Your task to perform on an android device: change the clock display to show seconds Image 0: 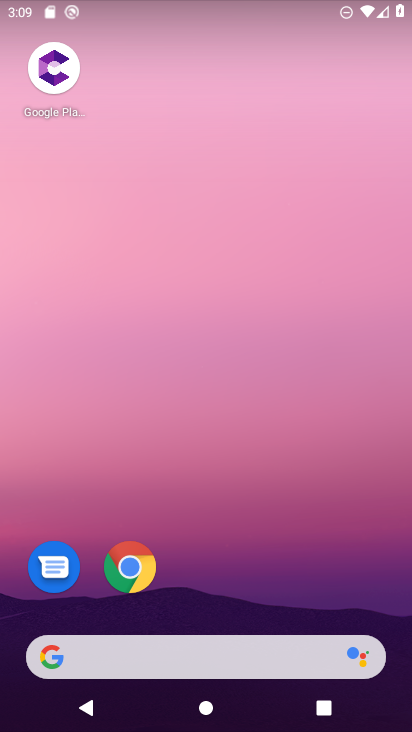
Step 0: drag from (232, 645) to (210, 165)
Your task to perform on an android device: change the clock display to show seconds Image 1: 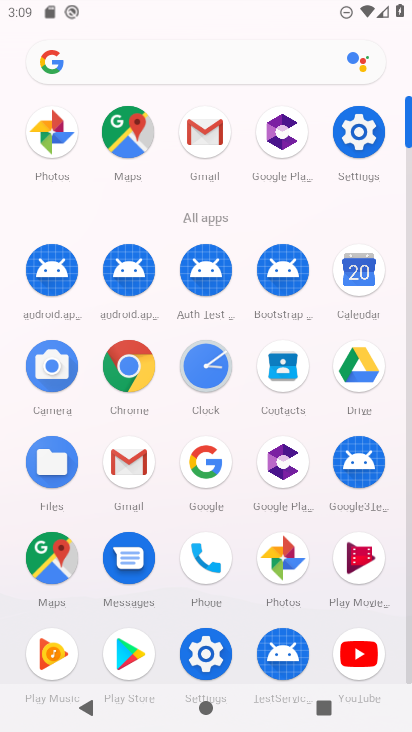
Step 1: click (202, 367)
Your task to perform on an android device: change the clock display to show seconds Image 2: 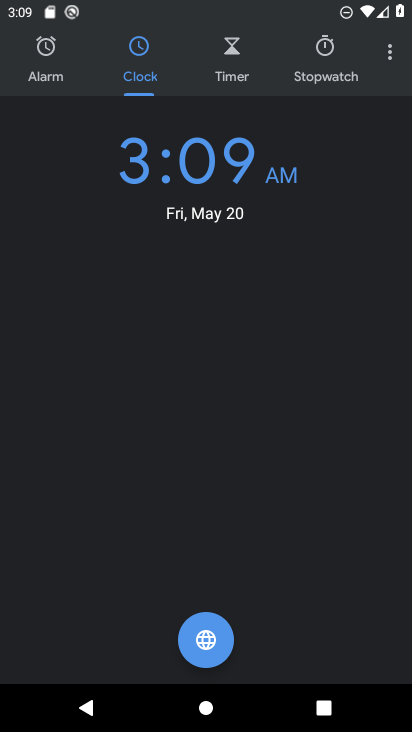
Step 2: click (390, 57)
Your task to perform on an android device: change the clock display to show seconds Image 3: 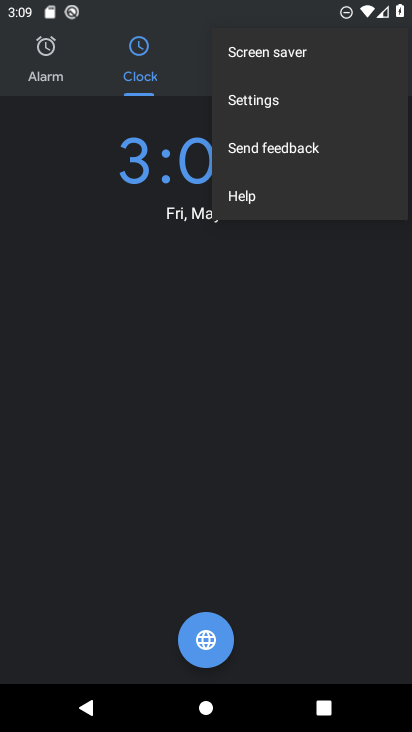
Step 3: click (255, 102)
Your task to perform on an android device: change the clock display to show seconds Image 4: 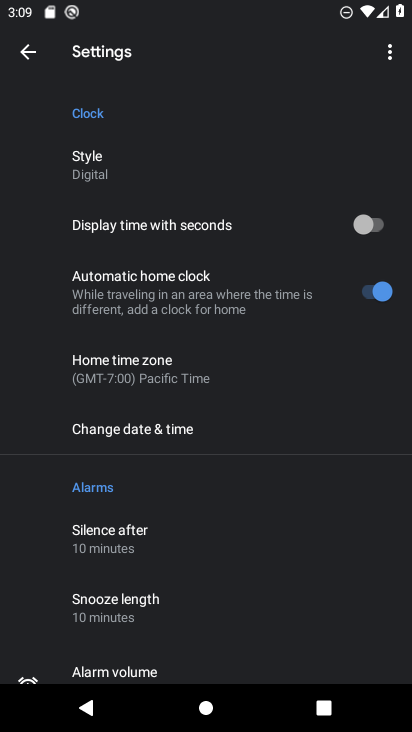
Step 4: click (377, 227)
Your task to perform on an android device: change the clock display to show seconds Image 5: 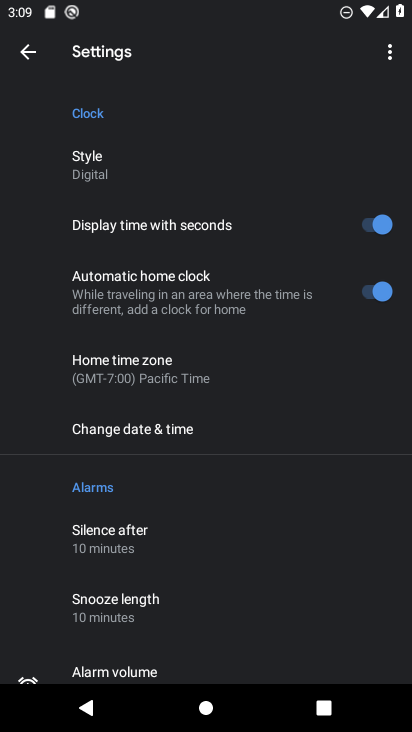
Step 5: task complete